Your task to perform on an android device: Go to Maps Image 0: 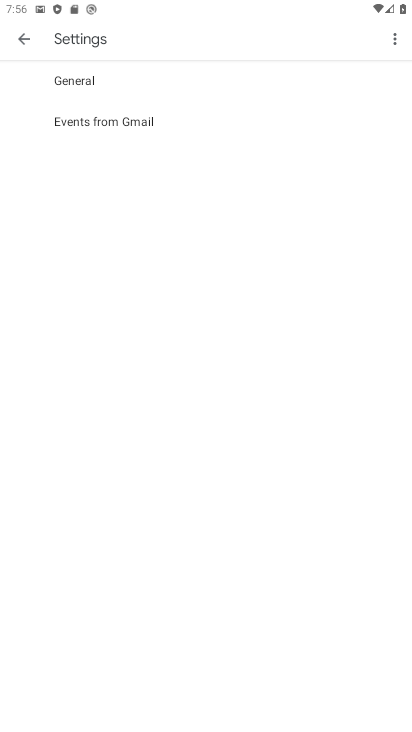
Step 0: press home button
Your task to perform on an android device: Go to Maps Image 1: 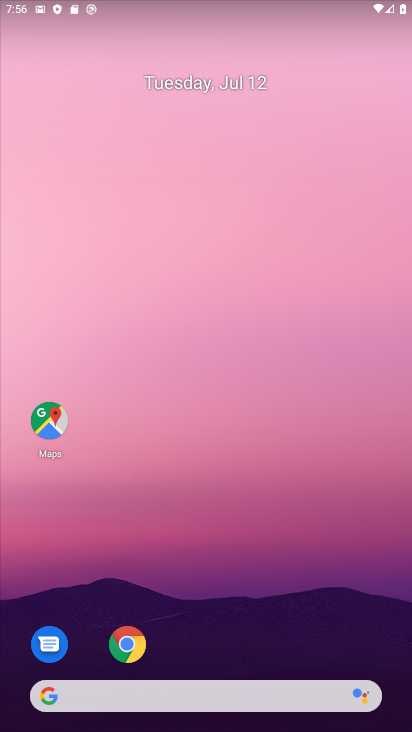
Step 1: click (49, 421)
Your task to perform on an android device: Go to Maps Image 2: 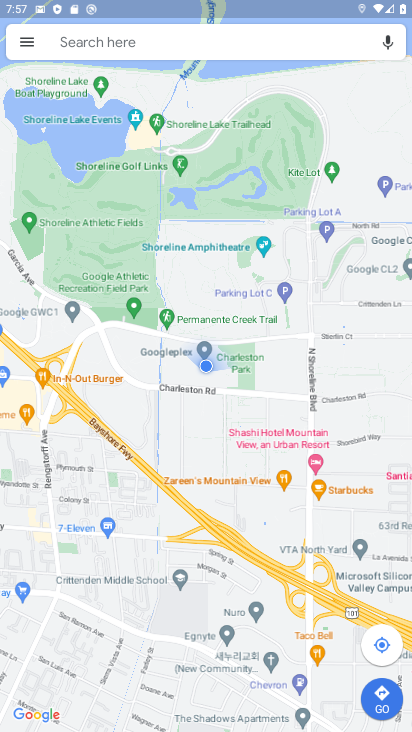
Step 2: task complete